Your task to perform on an android device: refresh tabs in the chrome app Image 0: 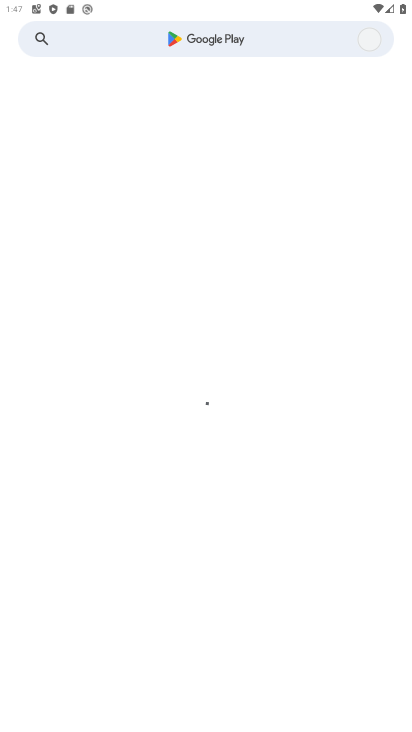
Step 0: press back button
Your task to perform on an android device: refresh tabs in the chrome app Image 1: 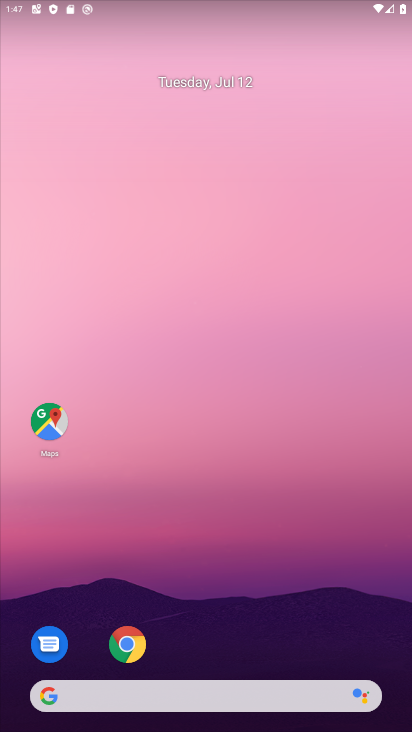
Step 1: click (116, 640)
Your task to perform on an android device: refresh tabs in the chrome app Image 2: 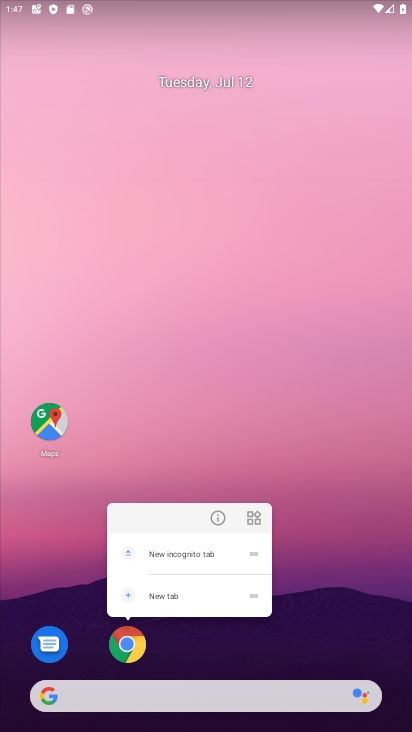
Step 2: click (131, 641)
Your task to perform on an android device: refresh tabs in the chrome app Image 3: 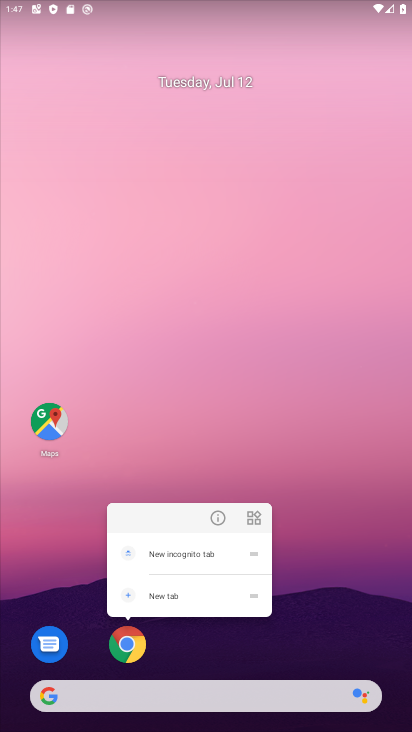
Step 3: click (121, 646)
Your task to perform on an android device: refresh tabs in the chrome app Image 4: 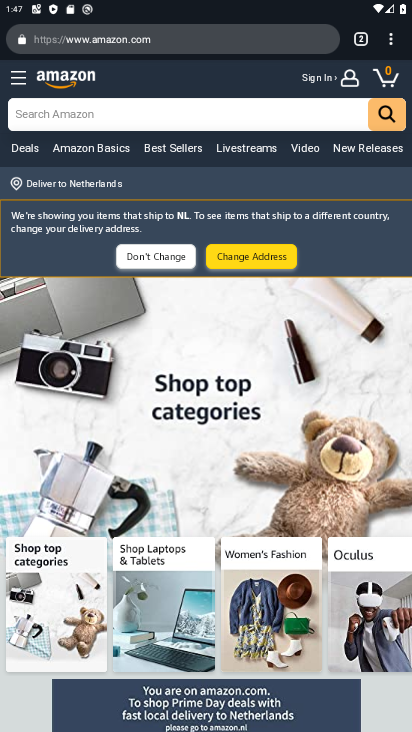
Step 4: click (391, 35)
Your task to perform on an android device: refresh tabs in the chrome app Image 5: 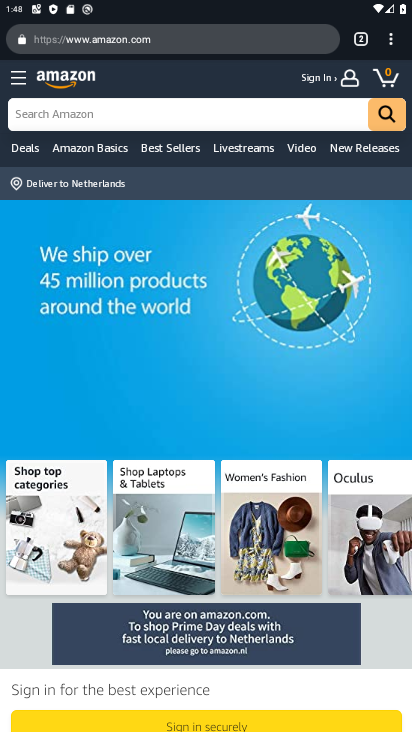
Step 5: task complete